Your task to perform on an android device: turn off translation in the chrome app Image 0: 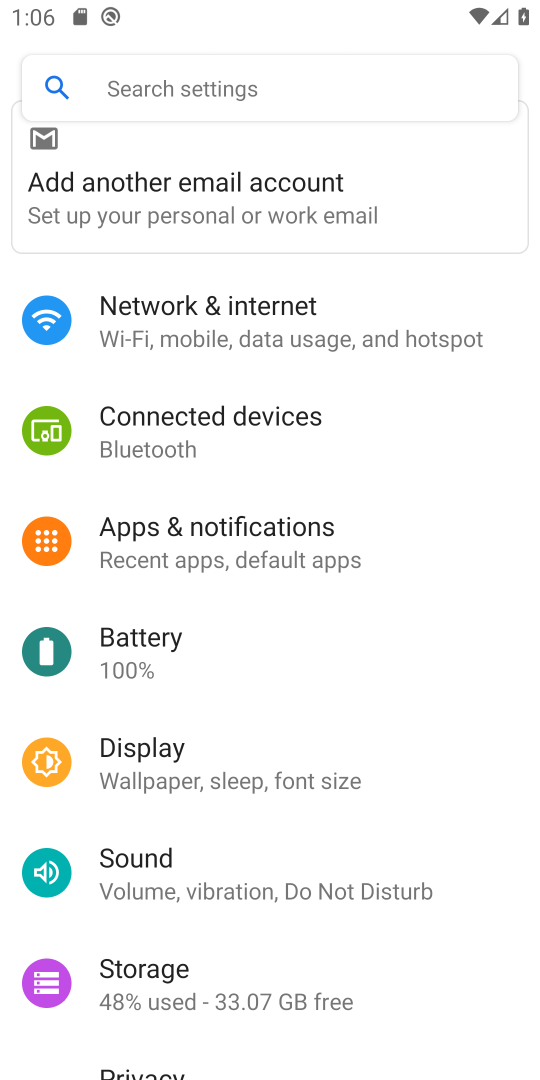
Step 0: press home button
Your task to perform on an android device: turn off translation in the chrome app Image 1: 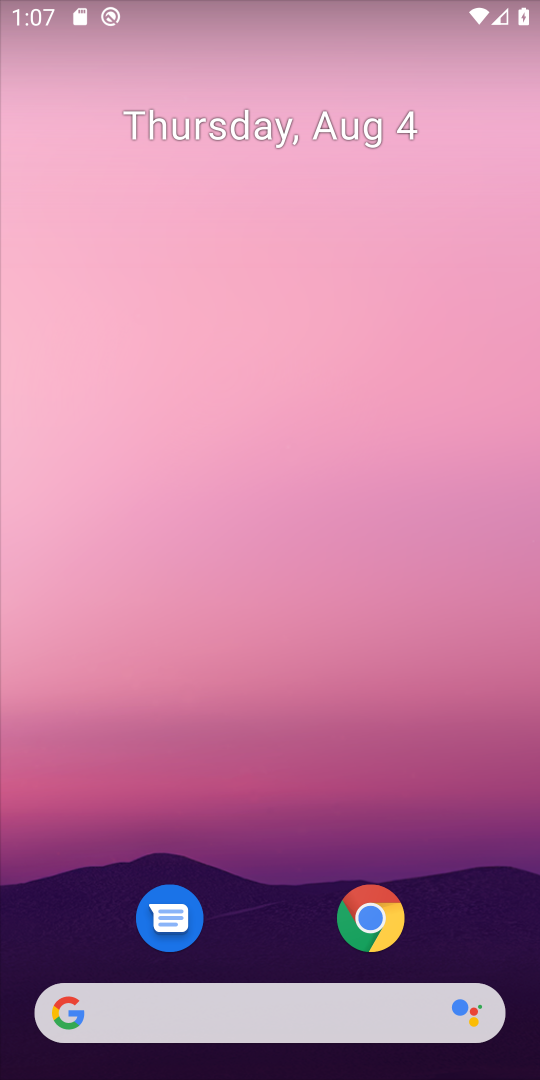
Step 1: click (369, 936)
Your task to perform on an android device: turn off translation in the chrome app Image 2: 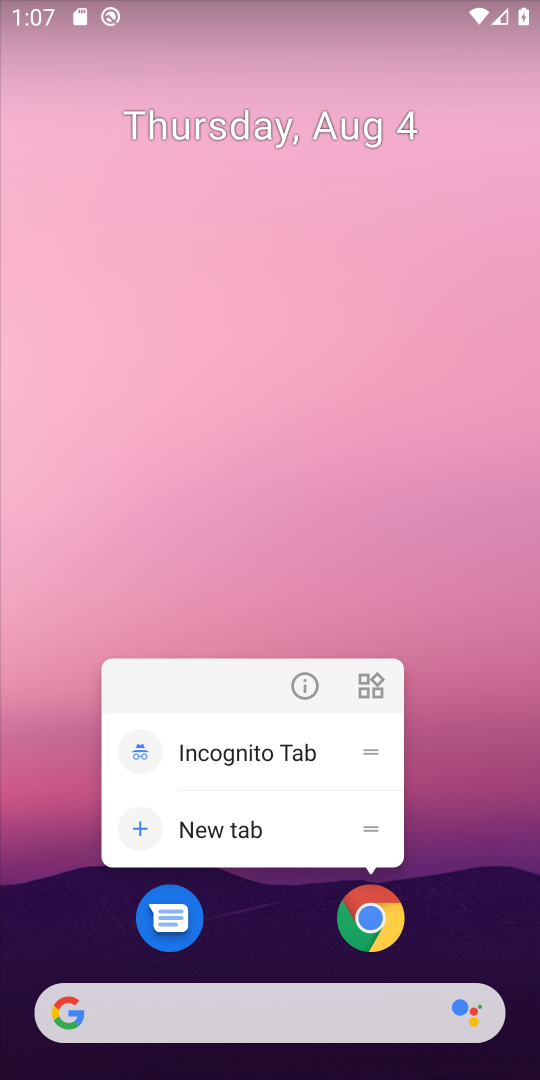
Step 2: click (369, 936)
Your task to perform on an android device: turn off translation in the chrome app Image 3: 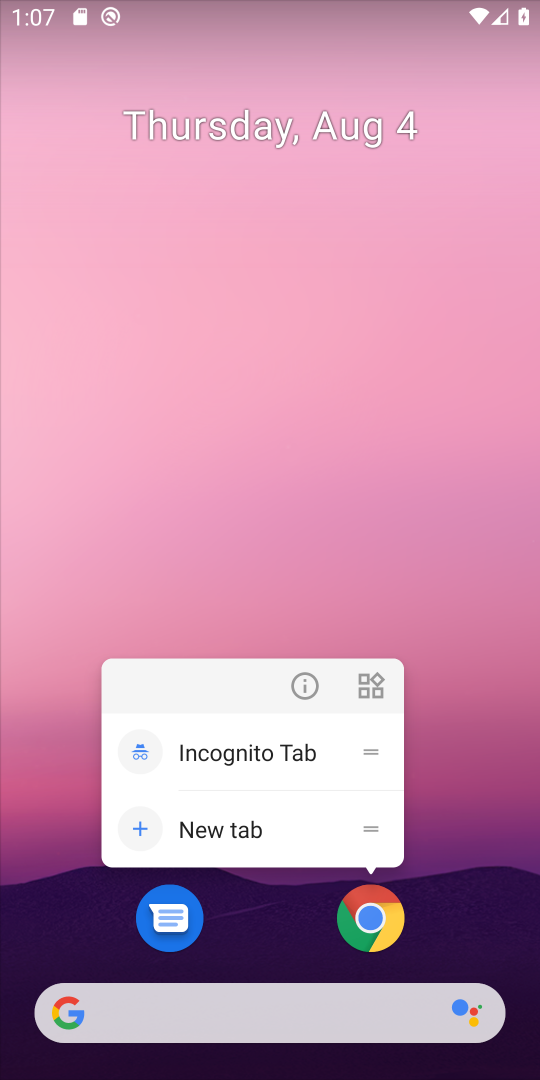
Step 3: click (369, 936)
Your task to perform on an android device: turn off translation in the chrome app Image 4: 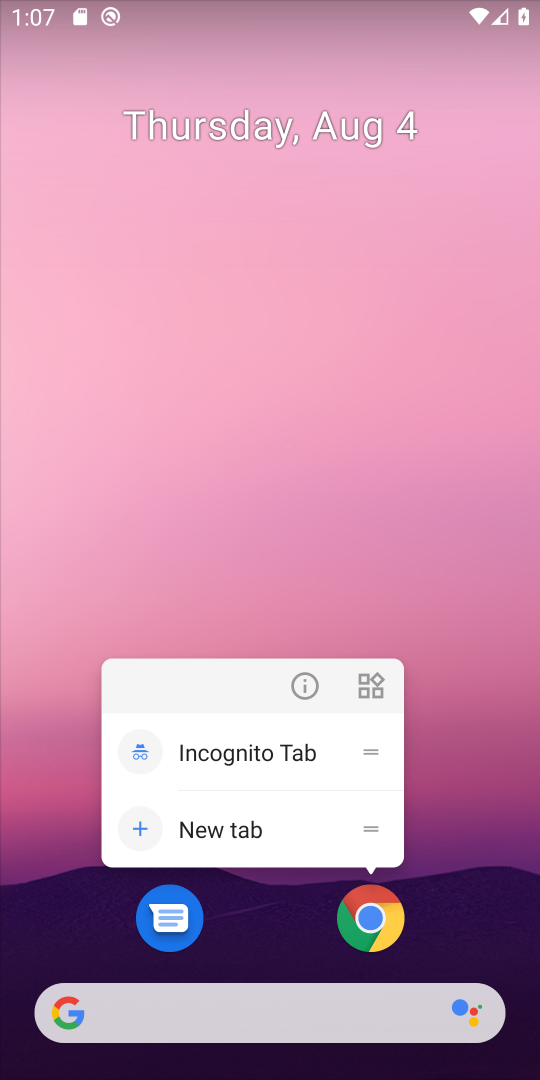
Step 4: click (366, 926)
Your task to perform on an android device: turn off translation in the chrome app Image 5: 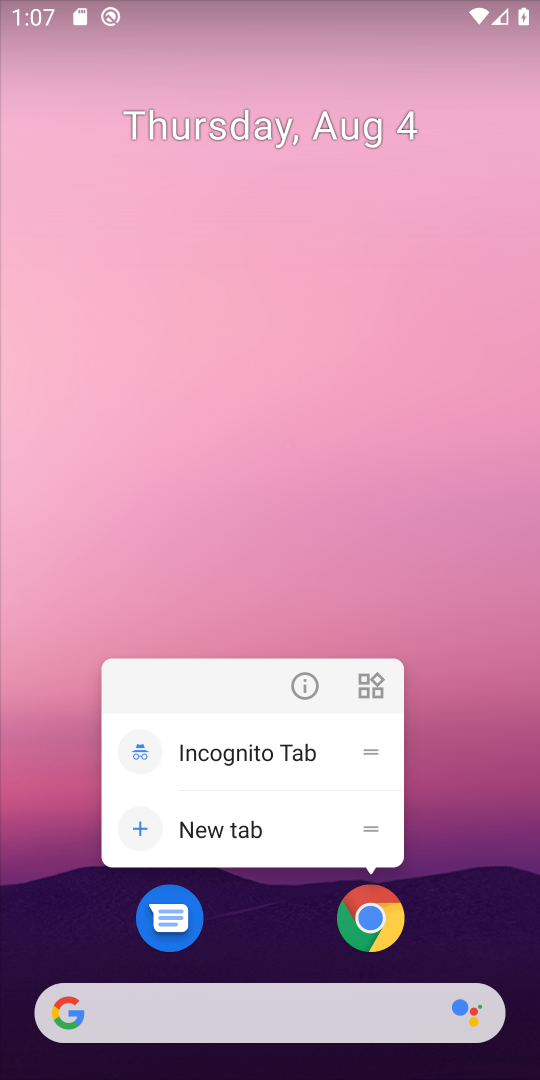
Step 5: click (381, 895)
Your task to perform on an android device: turn off translation in the chrome app Image 6: 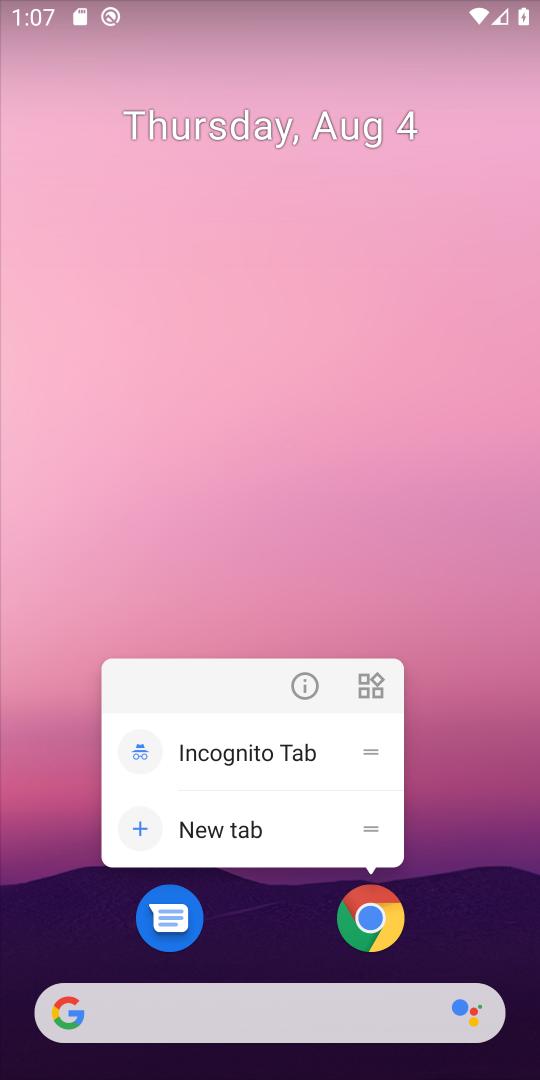
Step 6: click (376, 911)
Your task to perform on an android device: turn off translation in the chrome app Image 7: 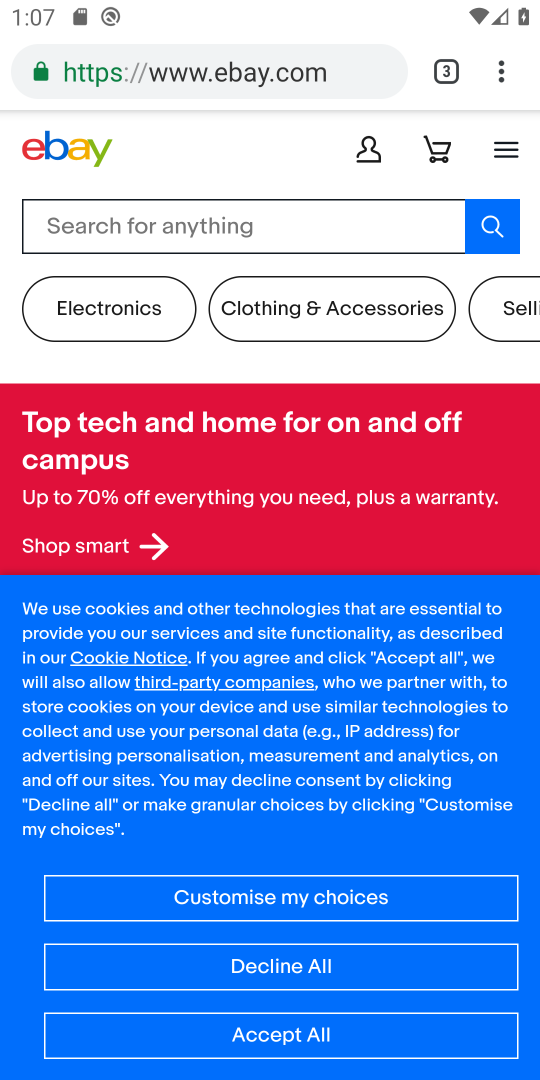
Step 7: drag from (493, 74) to (296, 845)
Your task to perform on an android device: turn off translation in the chrome app Image 8: 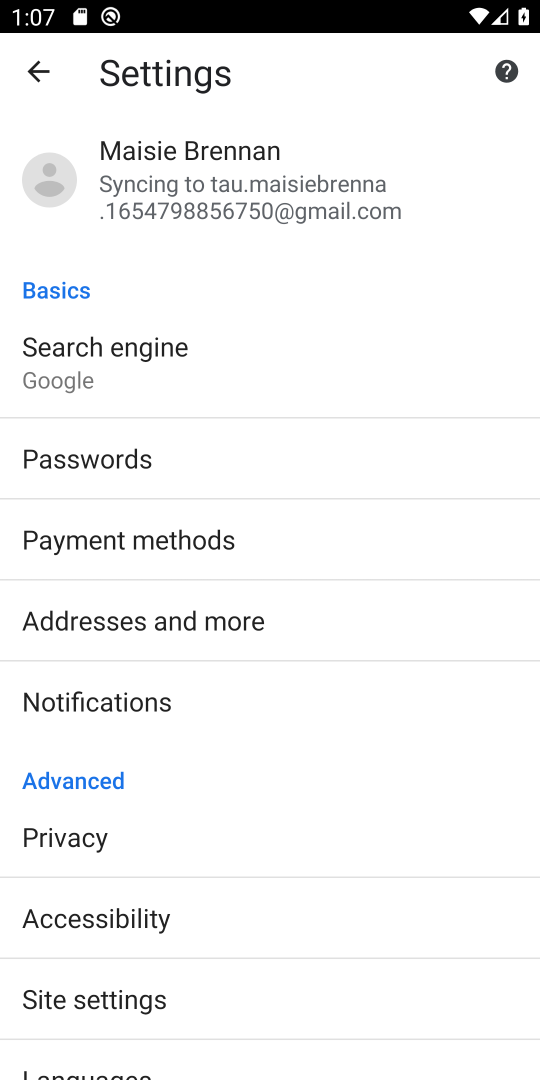
Step 8: drag from (179, 967) to (245, 561)
Your task to perform on an android device: turn off translation in the chrome app Image 9: 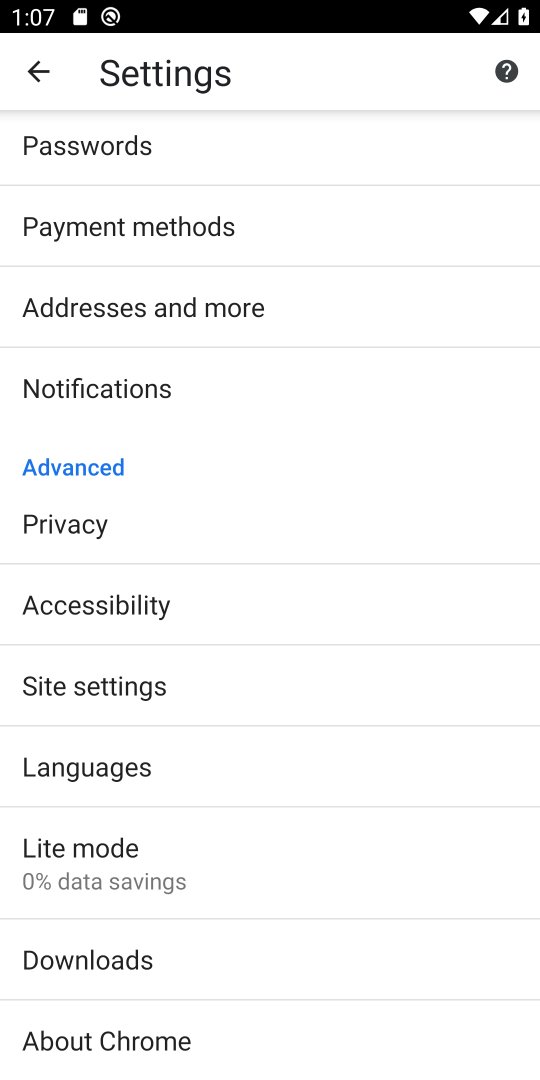
Step 9: click (186, 760)
Your task to perform on an android device: turn off translation in the chrome app Image 10: 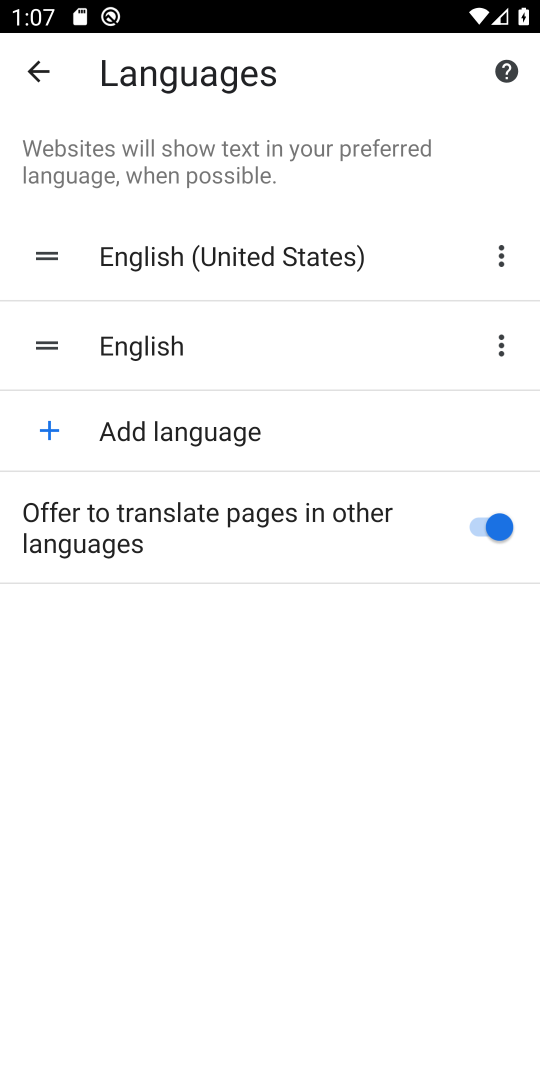
Step 10: click (500, 523)
Your task to perform on an android device: turn off translation in the chrome app Image 11: 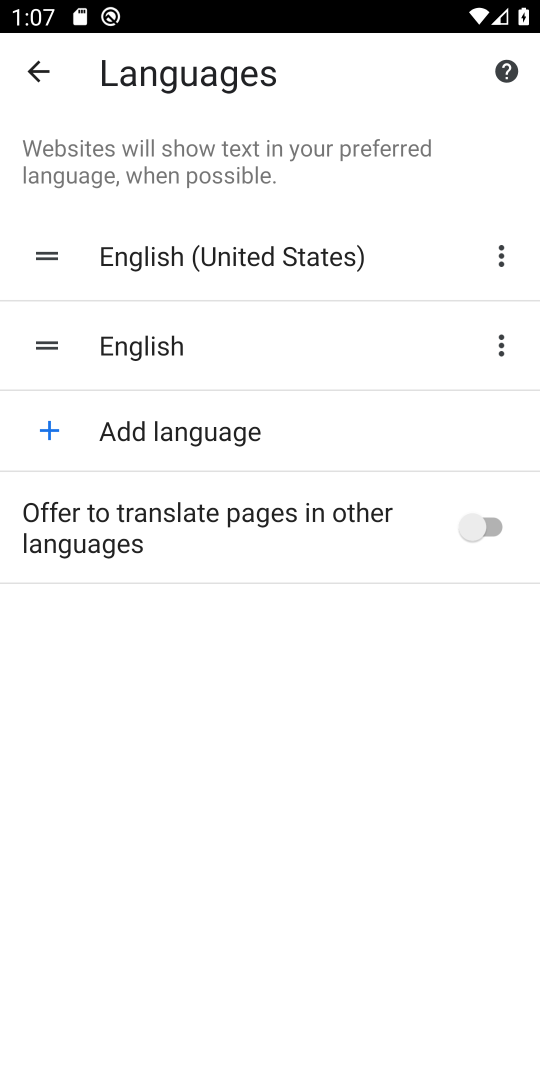
Step 11: task complete